Your task to perform on an android device: turn vacation reply on in the gmail app Image 0: 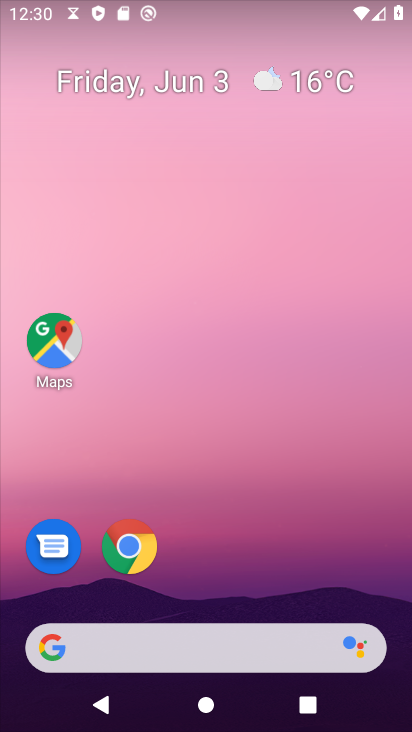
Step 0: drag from (227, 556) to (284, 37)
Your task to perform on an android device: turn vacation reply on in the gmail app Image 1: 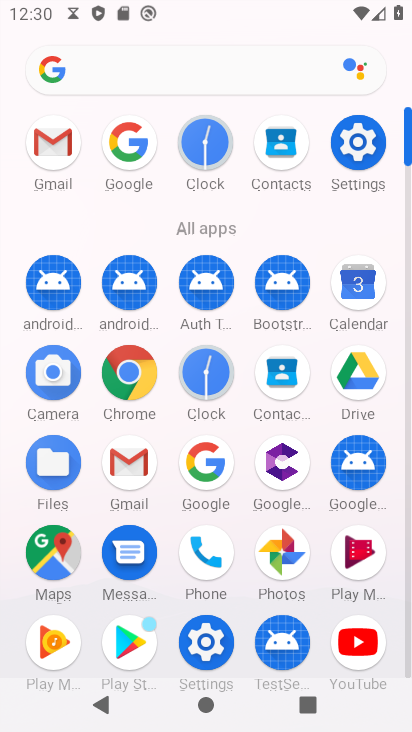
Step 1: click (47, 135)
Your task to perform on an android device: turn vacation reply on in the gmail app Image 2: 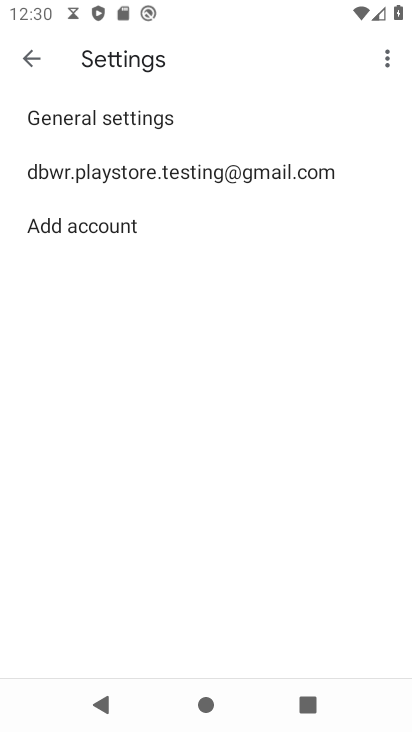
Step 2: click (32, 58)
Your task to perform on an android device: turn vacation reply on in the gmail app Image 3: 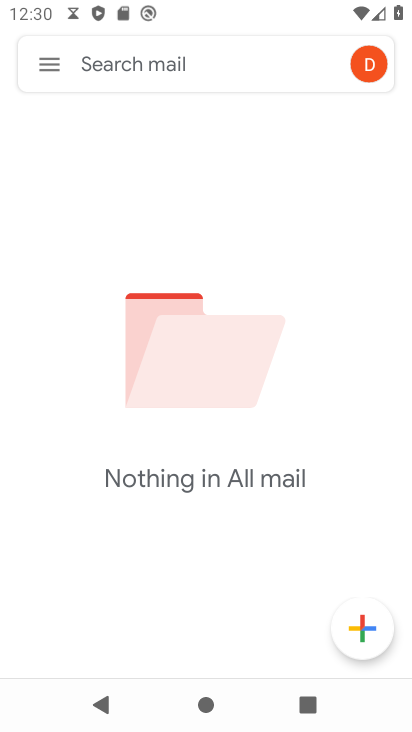
Step 3: click (49, 62)
Your task to perform on an android device: turn vacation reply on in the gmail app Image 4: 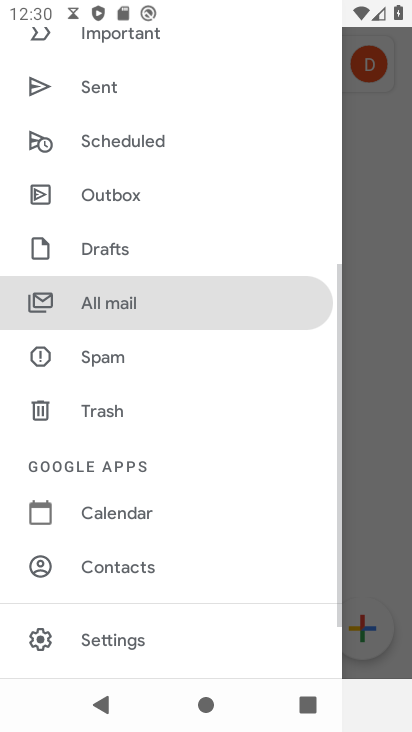
Step 4: click (113, 639)
Your task to perform on an android device: turn vacation reply on in the gmail app Image 5: 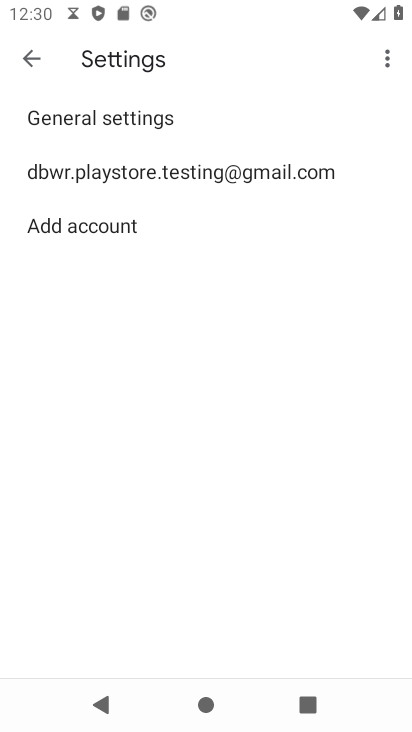
Step 5: click (129, 161)
Your task to perform on an android device: turn vacation reply on in the gmail app Image 6: 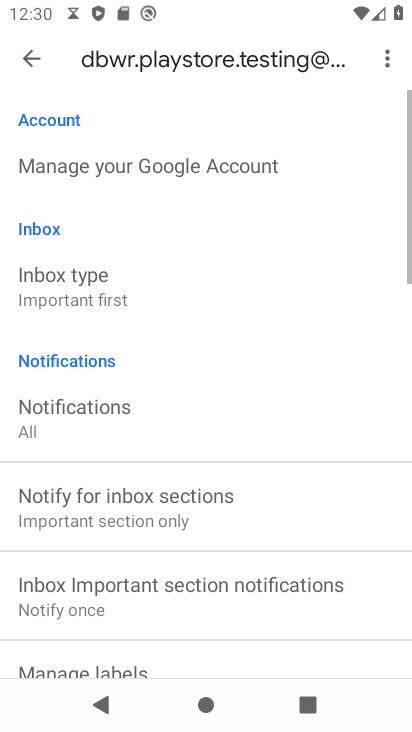
Step 6: drag from (173, 643) to (272, 27)
Your task to perform on an android device: turn vacation reply on in the gmail app Image 7: 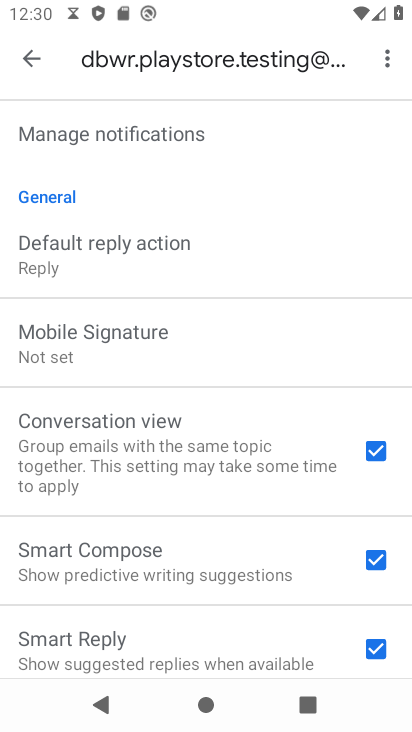
Step 7: drag from (182, 633) to (287, 83)
Your task to perform on an android device: turn vacation reply on in the gmail app Image 8: 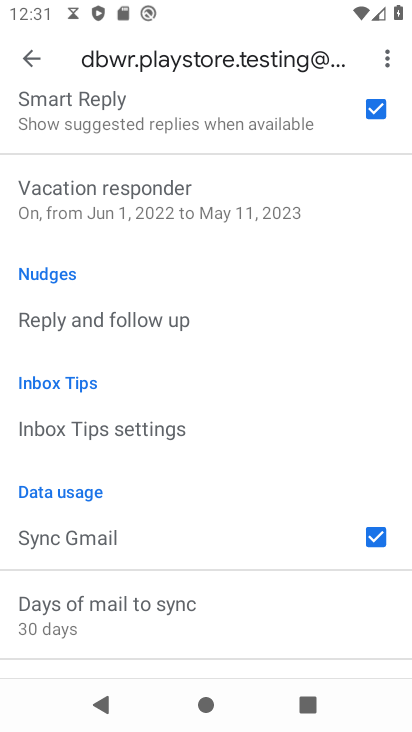
Step 8: click (152, 203)
Your task to perform on an android device: turn vacation reply on in the gmail app Image 9: 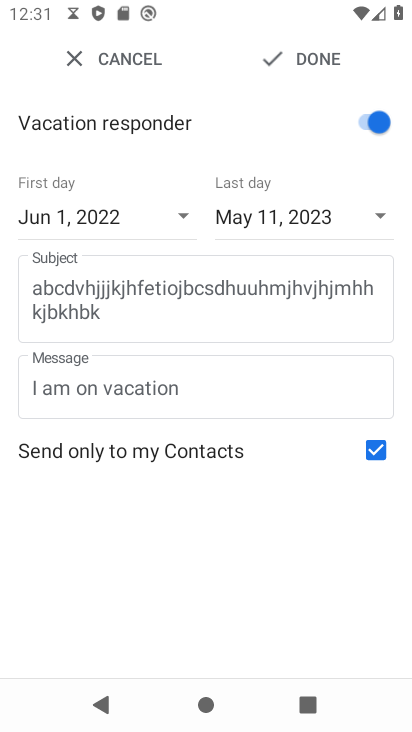
Step 9: task complete